Your task to perform on an android device: turn on showing notifications on the lock screen Image 0: 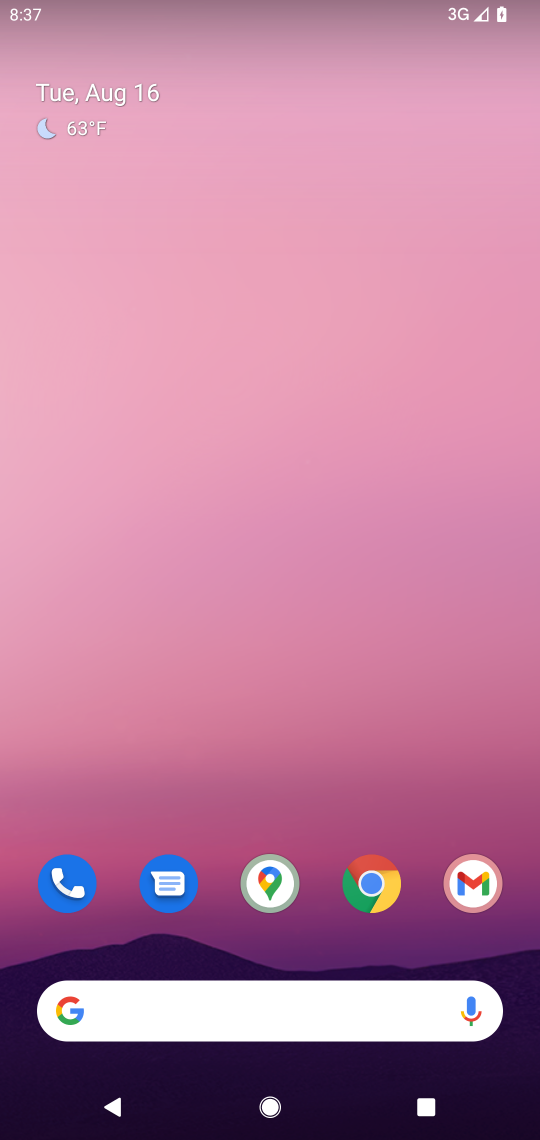
Step 0: drag from (345, 857) to (317, 144)
Your task to perform on an android device: turn on showing notifications on the lock screen Image 1: 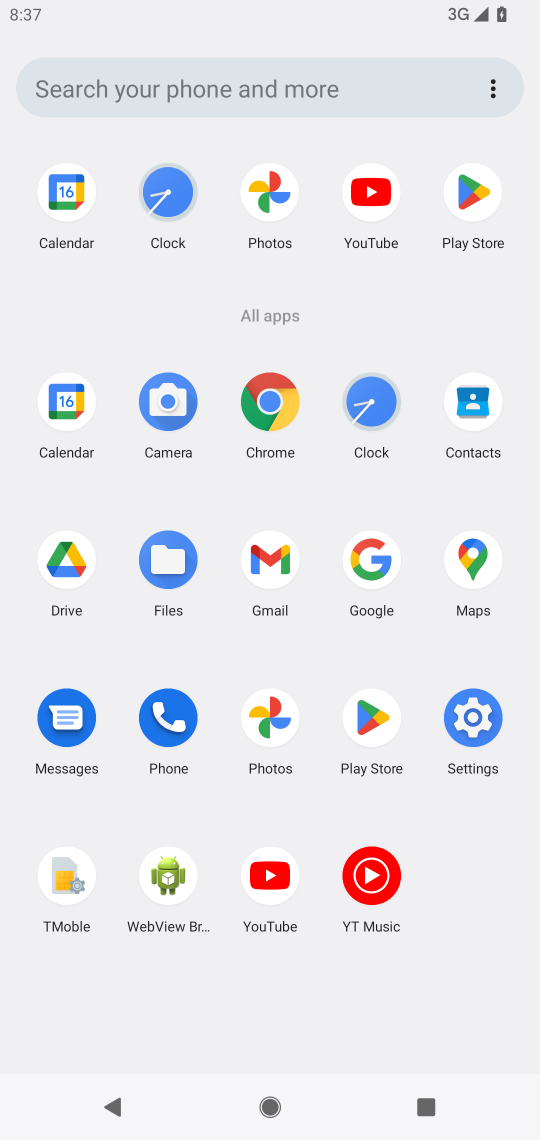
Step 1: click (479, 715)
Your task to perform on an android device: turn on showing notifications on the lock screen Image 2: 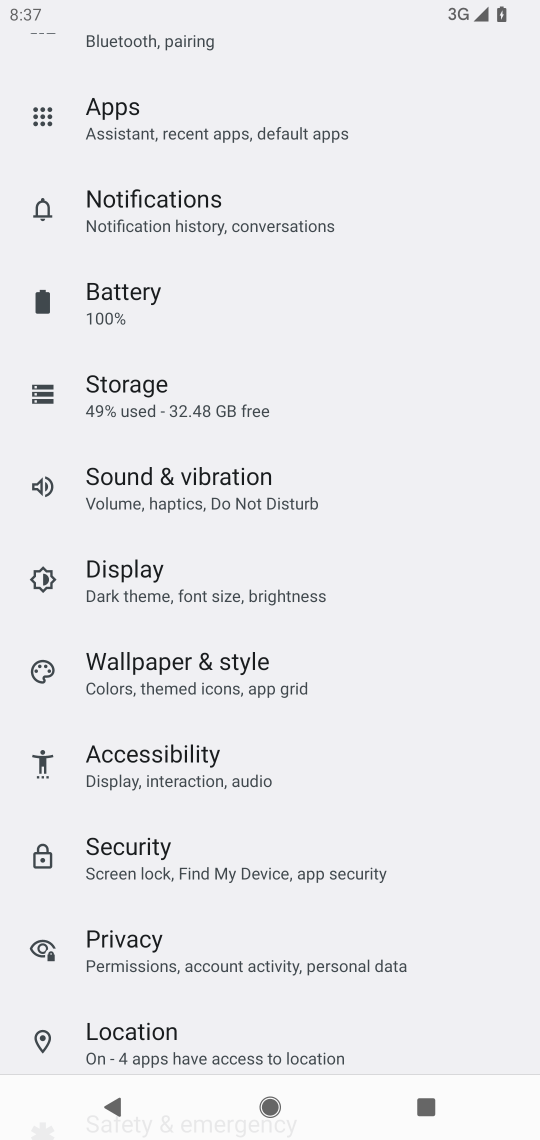
Step 2: click (221, 208)
Your task to perform on an android device: turn on showing notifications on the lock screen Image 3: 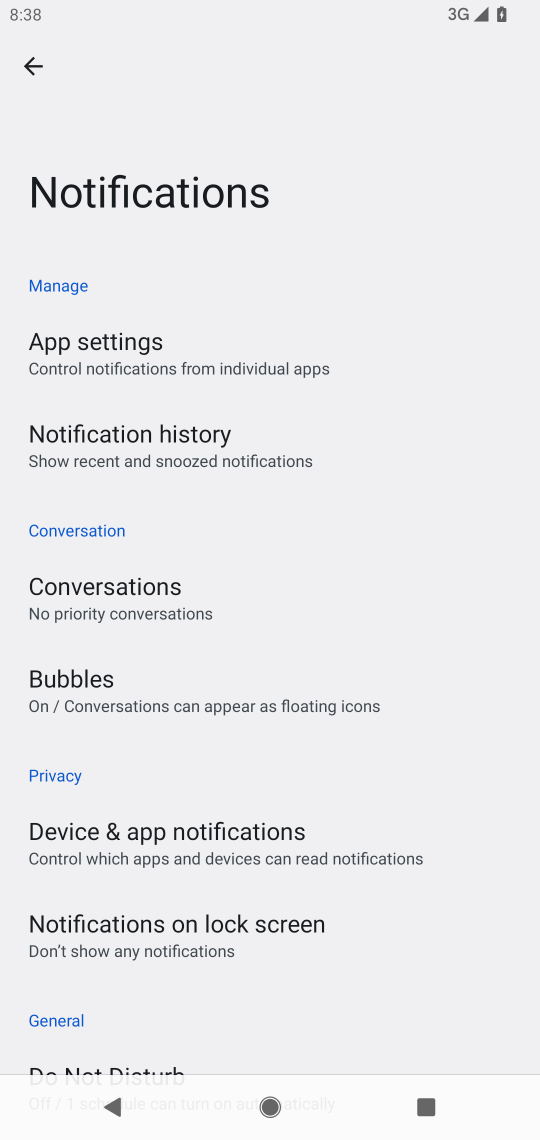
Step 3: click (254, 942)
Your task to perform on an android device: turn on showing notifications on the lock screen Image 4: 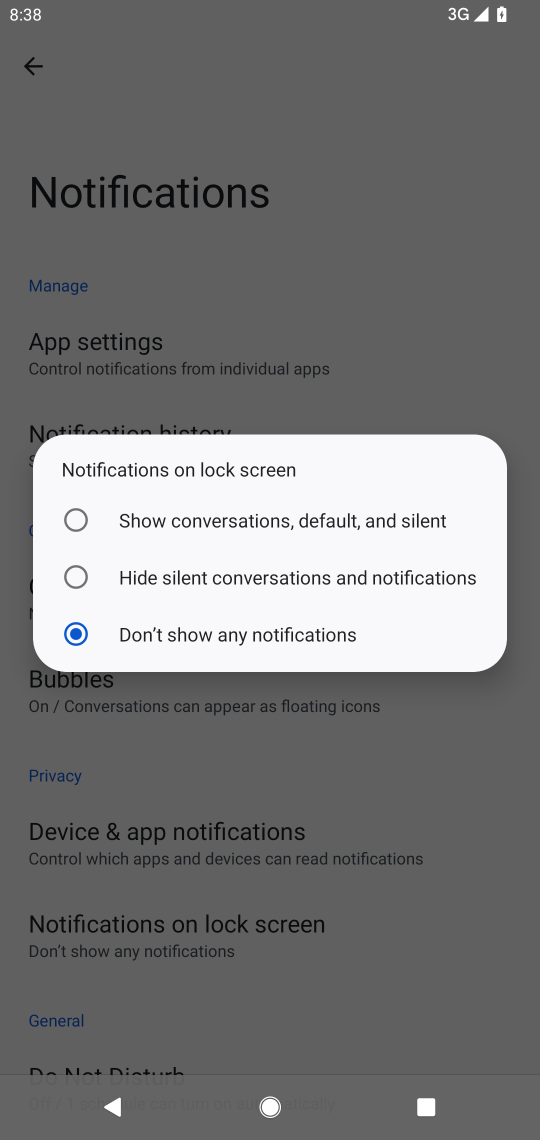
Step 4: click (72, 515)
Your task to perform on an android device: turn on showing notifications on the lock screen Image 5: 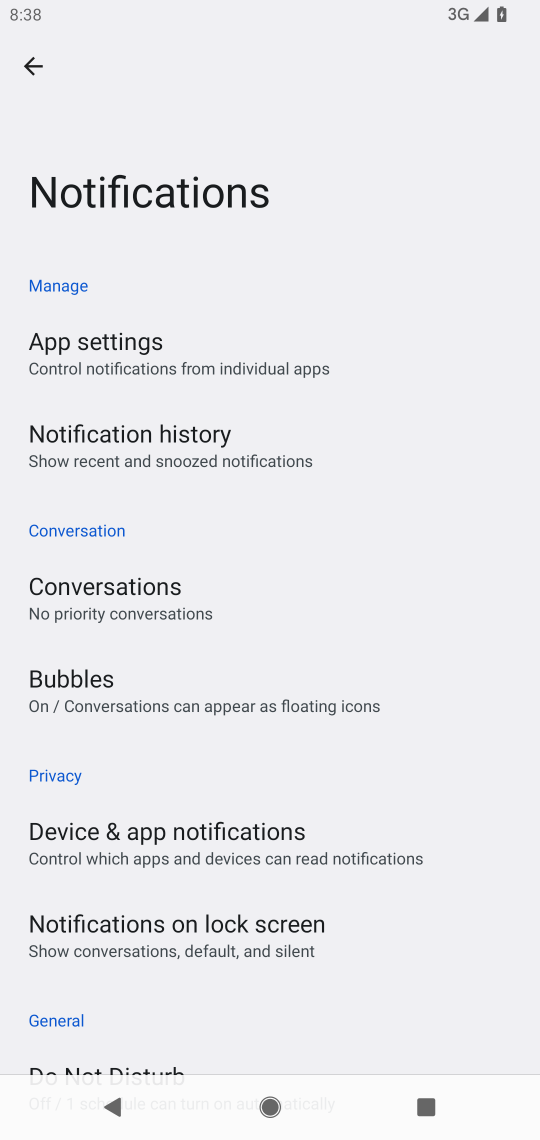
Step 5: task complete